Your task to perform on an android device: add a label to a message in the gmail app Image 0: 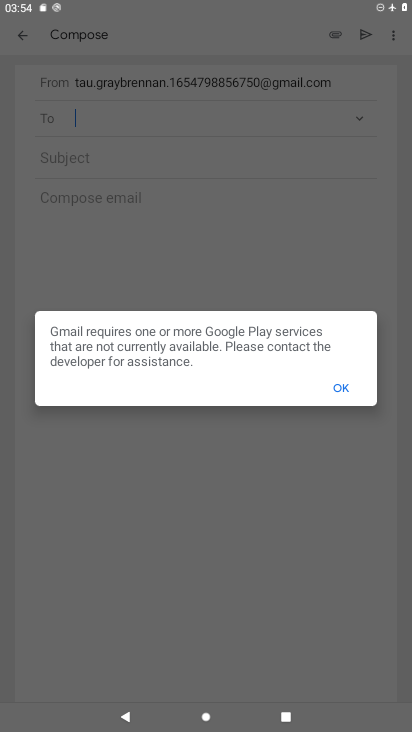
Step 0: press home button
Your task to perform on an android device: add a label to a message in the gmail app Image 1: 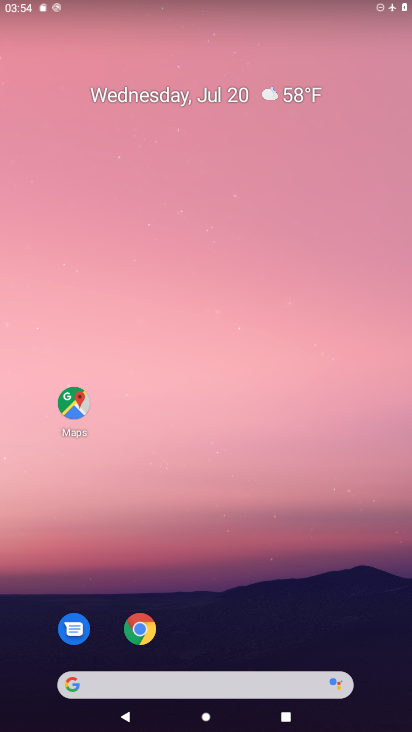
Step 1: drag from (290, 641) to (286, 67)
Your task to perform on an android device: add a label to a message in the gmail app Image 2: 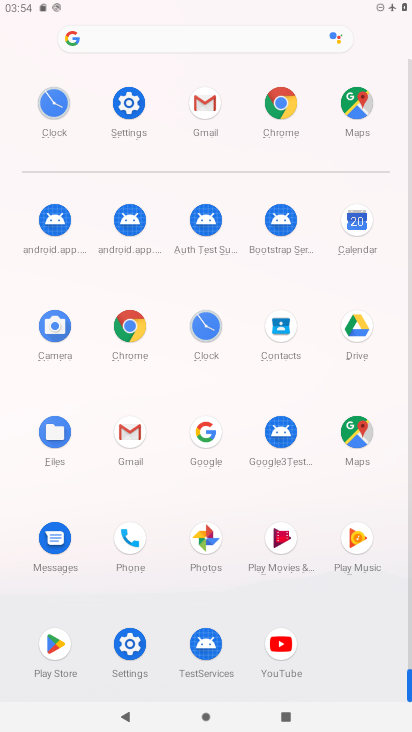
Step 2: click (131, 431)
Your task to perform on an android device: add a label to a message in the gmail app Image 3: 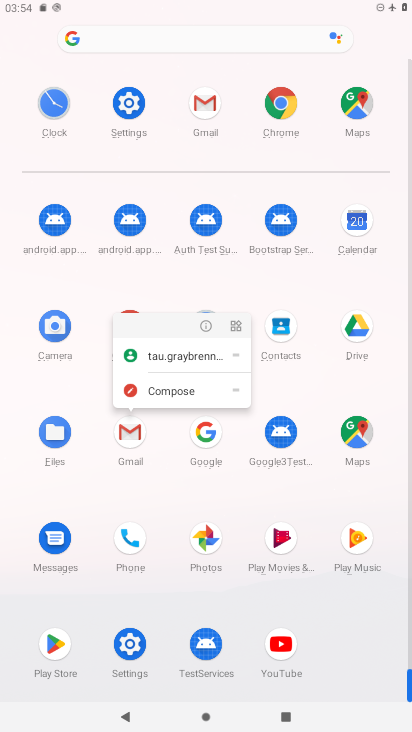
Step 3: click (130, 435)
Your task to perform on an android device: add a label to a message in the gmail app Image 4: 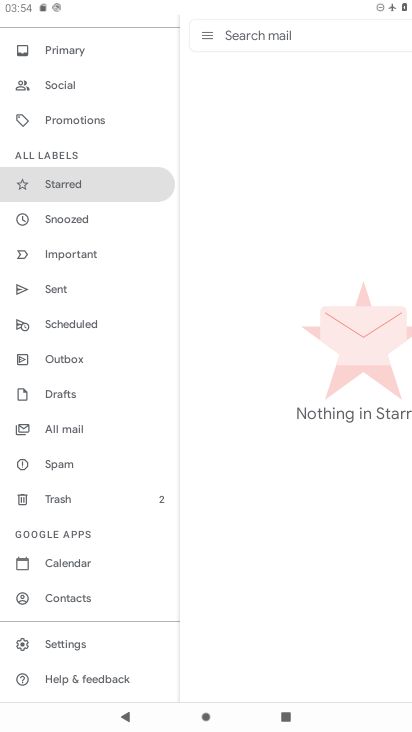
Step 4: task complete